Your task to perform on an android device: Open Google Maps and go to "Timeline" Image 0: 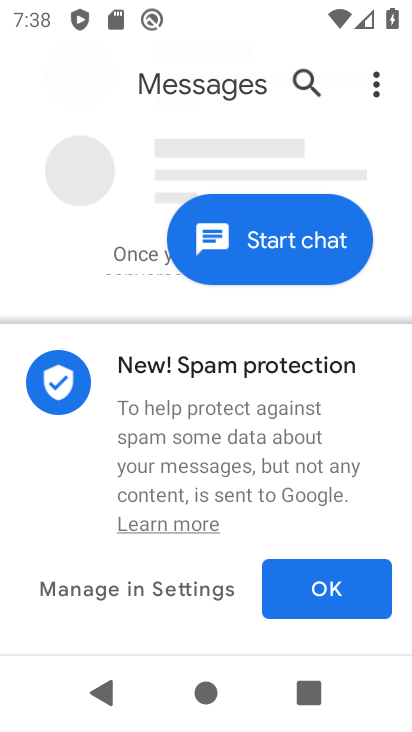
Step 0: press home button
Your task to perform on an android device: Open Google Maps and go to "Timeline" Image 1: 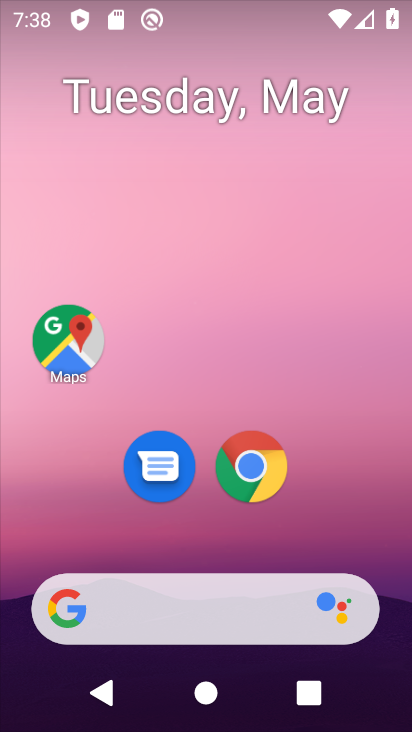
Step 1: click (75, 333)
Your task to perform on an android device: Open Google Maps and go to "Timeline" Image 2: 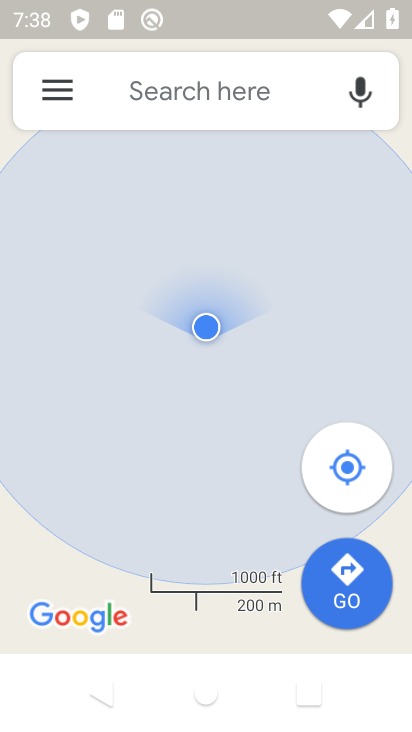
Step 2: click (52, 84)
Your task to perform on an android device: Open Google Maps and go to "Timeline" Image 3: 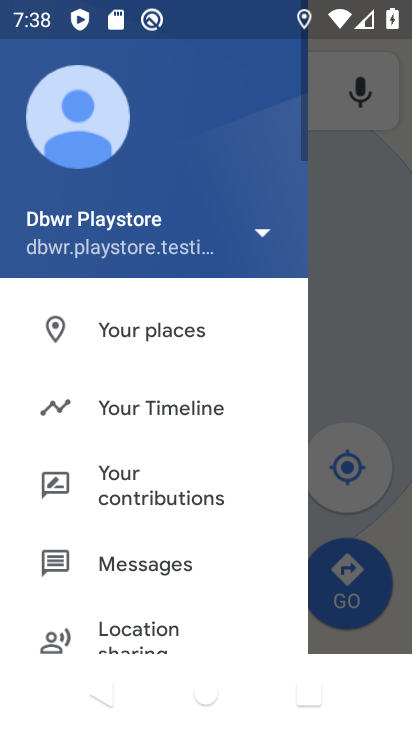
Step 3: click (193, 397)
Your task to perform on an android device: Open Google Maps and go to "Timeline" Image 4: 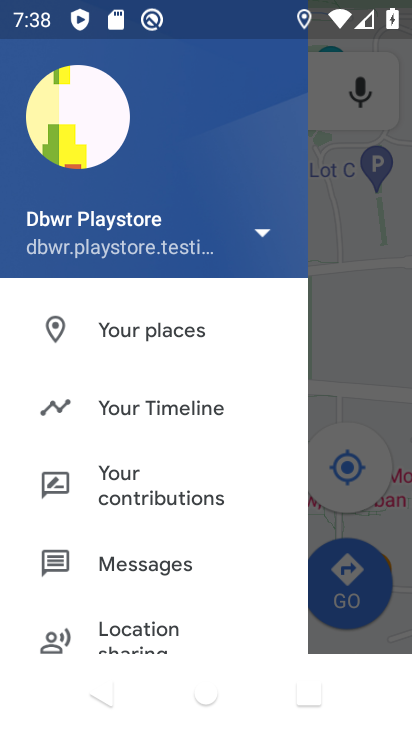
Step 4: click (139, 413)
Your task to perform on an android device: Open Google Maps and go to "Timeline" Image 5: 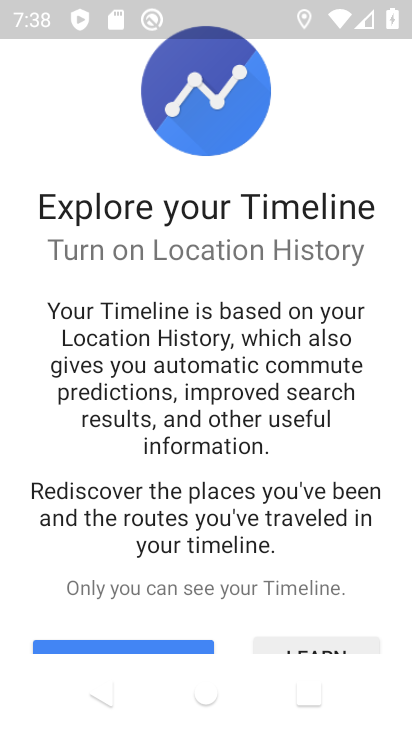
Step 5: task complete